Your task to perform on an android device: remove spam from my inbox in the gmail app Image 0: 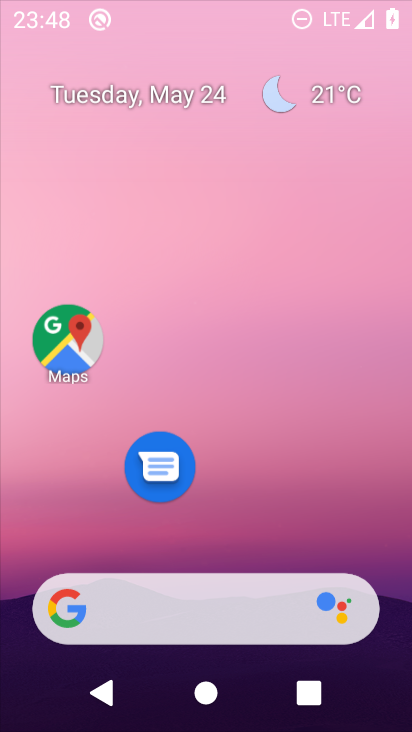
Step 0: click (200, 155)
Your task to perform on an android device: remove spam from my inbox in the gmail app Image 1: 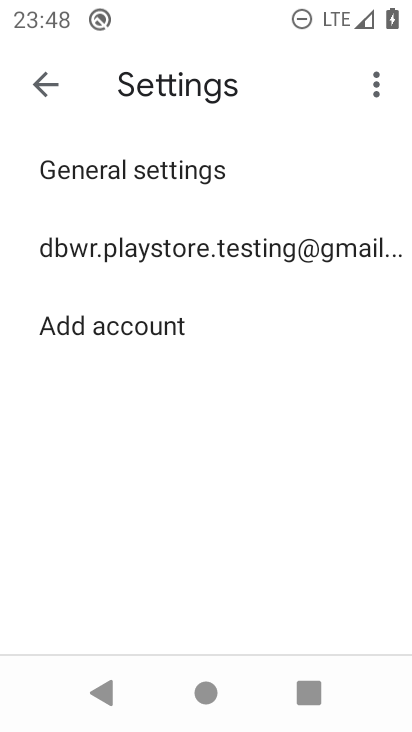
Step 1: drag from (192, 604) to (154, 214)
Your task to perform on an android device: remove spam from my inbox in the gmail app Image 2: 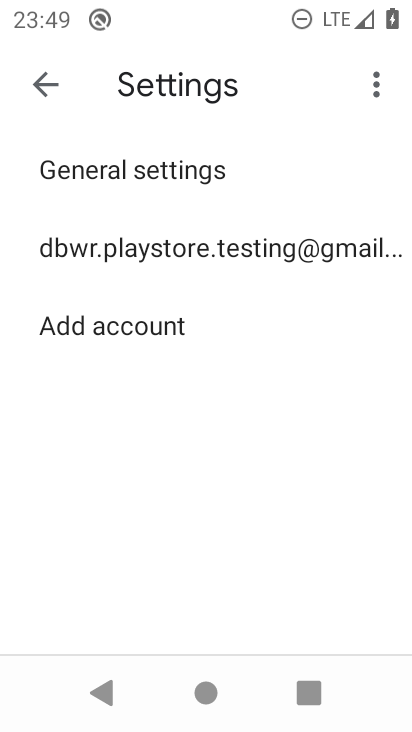
Step 2: drag from (185, 435) to (197, 158)
Your task to perform on an android device: remove spam from my inbox in the gmail app Image 3: 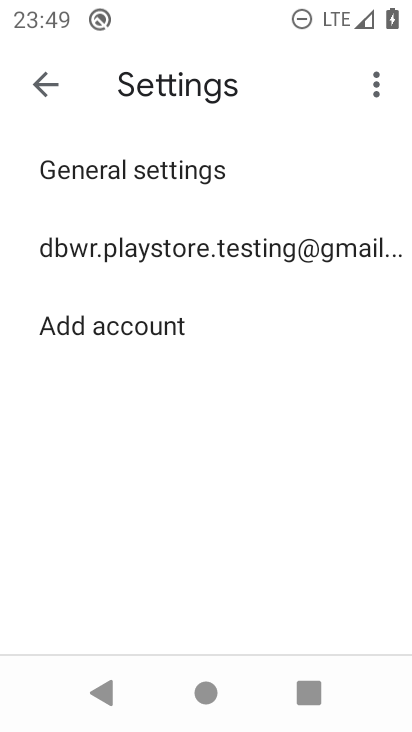
Step 3: drag from (285, 412) to (261, 162)
Your task to perform on an android device: remove spam from my inbox in the gmail app Image 4: 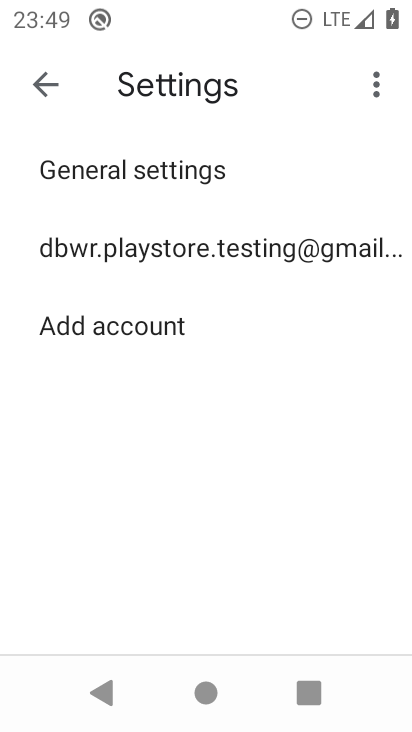
Step 4: press home button
Your task to perform on an android device: remove spam from my inbox in the gmail app Image 5: 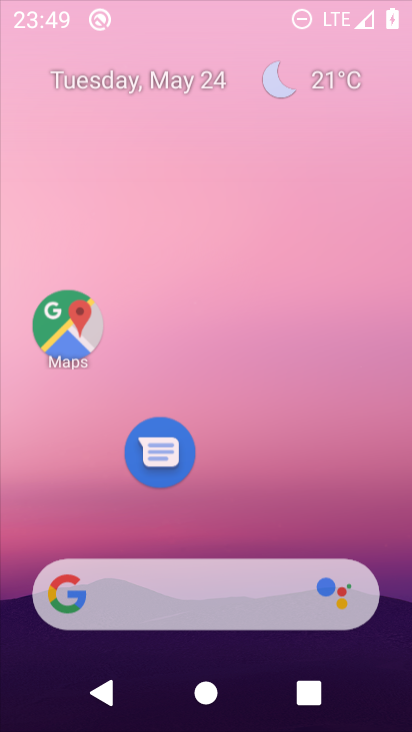
Step 5: drag from (188, 595) to (226, 102)
Your task to perform on an android device: remove spam from my inbox in the gmail app Image 6: 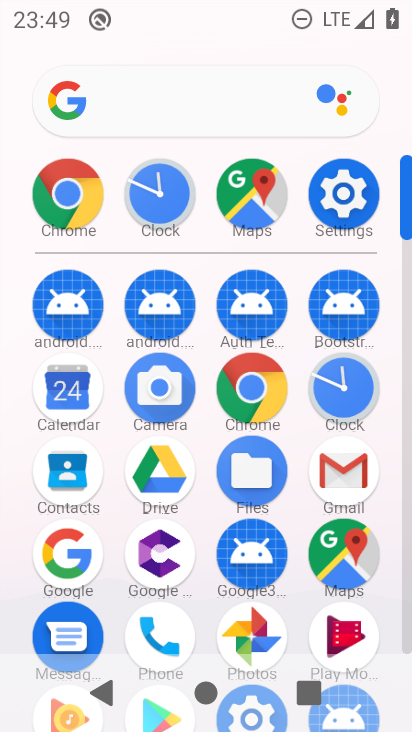
Step 6: click (330, 467)
Your task to perform on an android device: remove spam from my inbox in the gmail app Image 7: 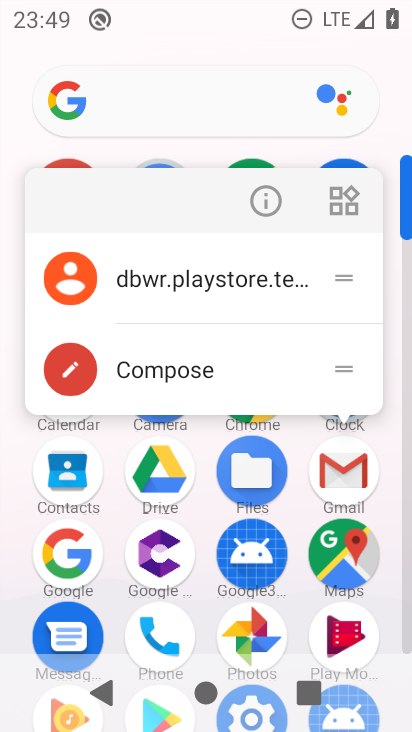
Step 7: click (279, 199)
Your task to perform on an android device: remove spam from my inbox in the gmail app Image 8: 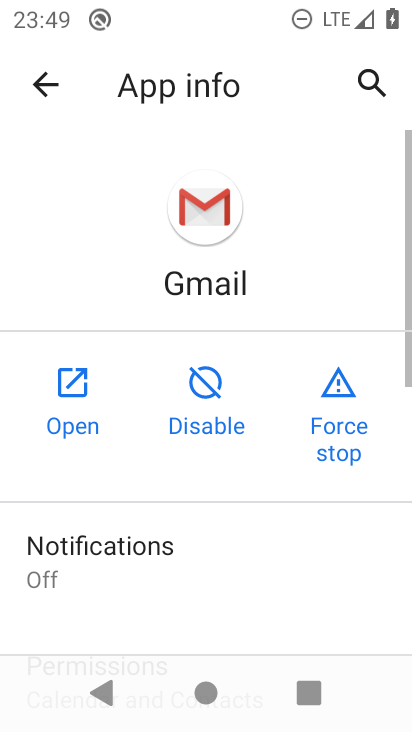
Step 8: click (49, 438)
Your task to perform on an android device: remove spam from my inbox in the gmail app Image 9: 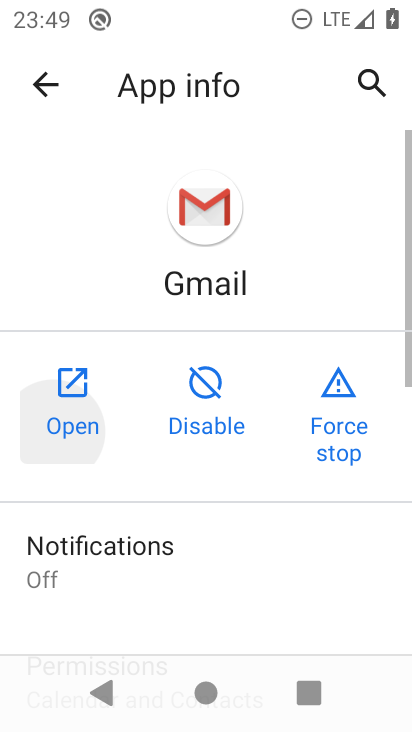
Step 9: click (74, 390)
Your task to perform on an android device: remove spam from my inbox in the gmail app Image 10: 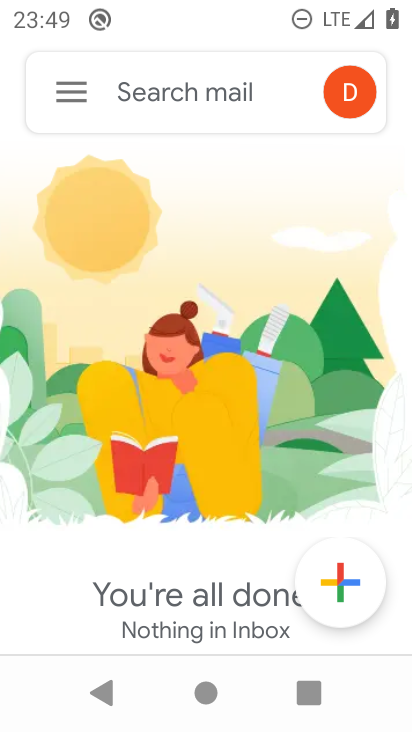
Step 10: click (58, 83)
Your task to perform on an android device: remove spam from my inbox in the gmail app Image 11: 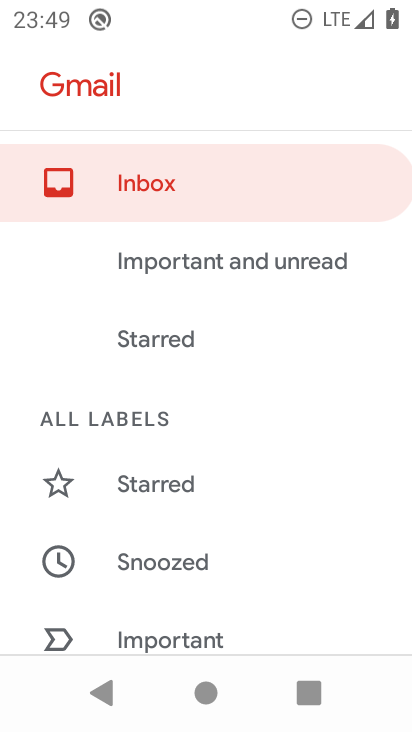
Step 11: drag from (175, 578) to (221, 340)
Your task to perform on an android device: remove spam from my inbox in the gmail app Image 12: 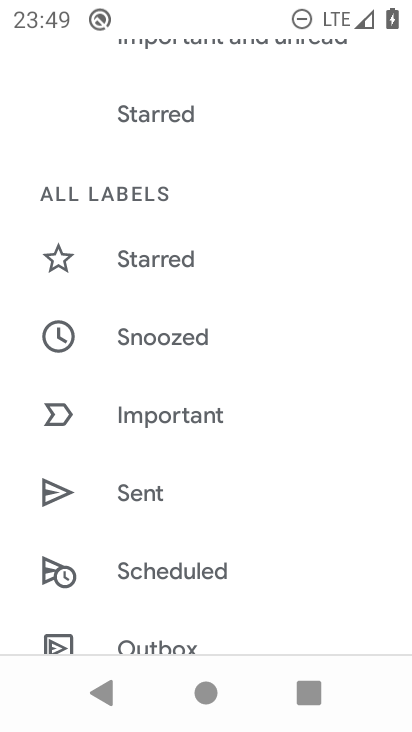
Step 12: drag from (224, 597) to (295, 127)
Your task to perform on an android device: remove spam from my inbox in the gmail app Image 13: 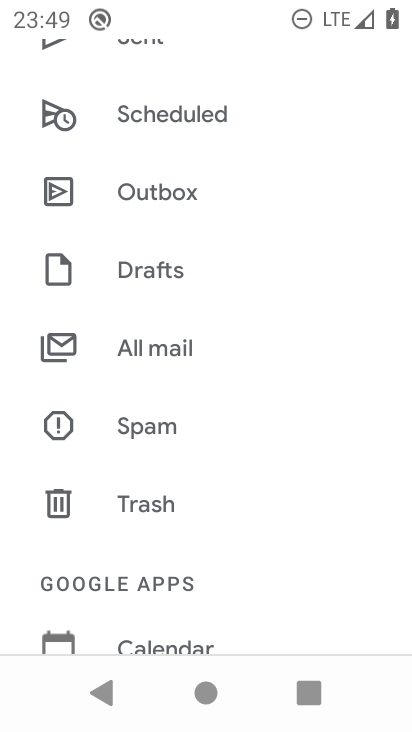
Step 13: click (144, 429)
Your task to perform on an android device: remove spam from my inbox in the gmail app Image 14: 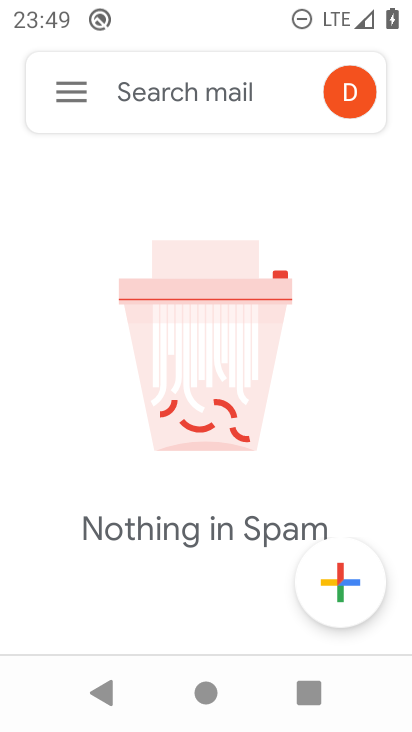
Step 14: drag from (187, 582) to (253, 368)
Your task to perform on an android device: remove spam from my inbox in the gmail app Image 15: 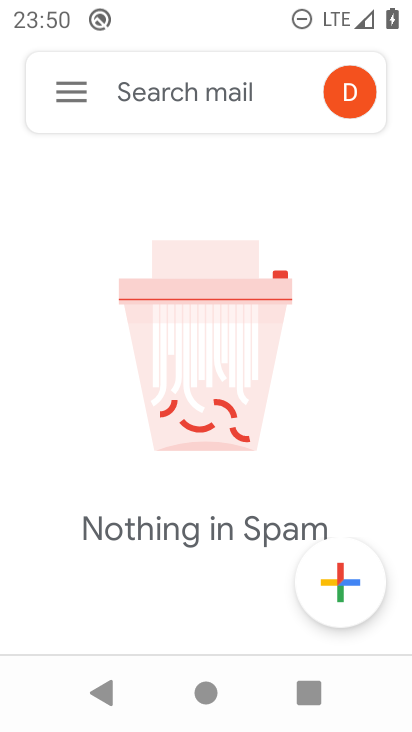
Step 15: drag from (194, 639) to (264, 262)
Your task to perform on an android device: remove spam from my inbox in the gmail app Image 16: 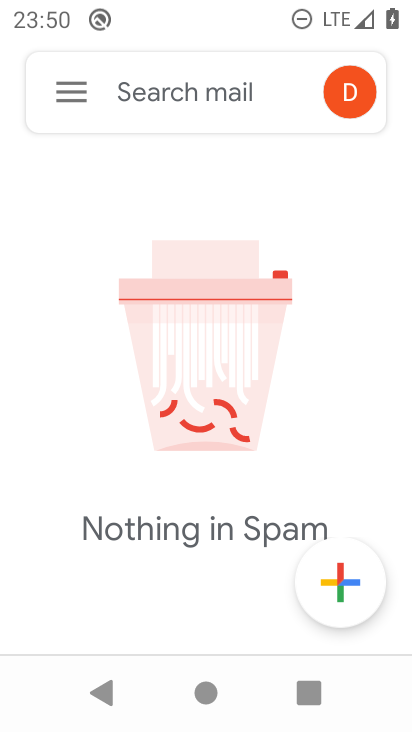
Step 16: click (195, 207)
Your task to perform on an android device: remove spam from my inbox in the gmail app Image 17: 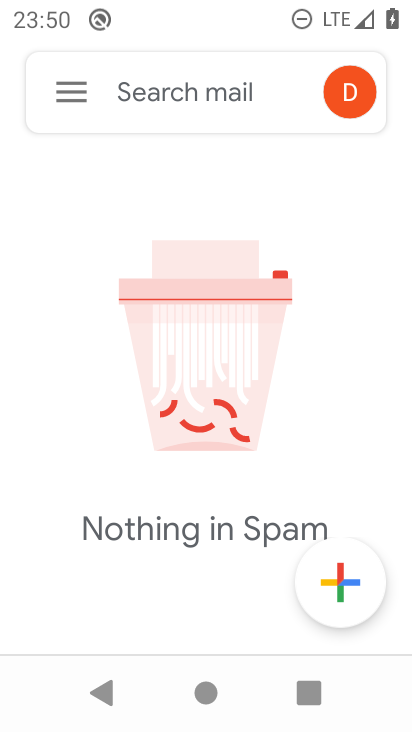
Step 17: drag from (249, 545) to (245, 243)
Your task to perform on an android device: remove spam from my inbox in the gmail app Image 18: 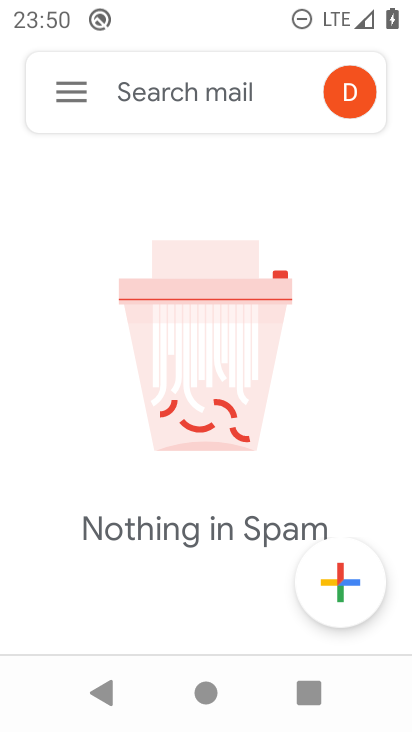
Step 18: click (70, 102)
Your task to perform on an android device: remove spam from my inbox in the gmail app Image 19: 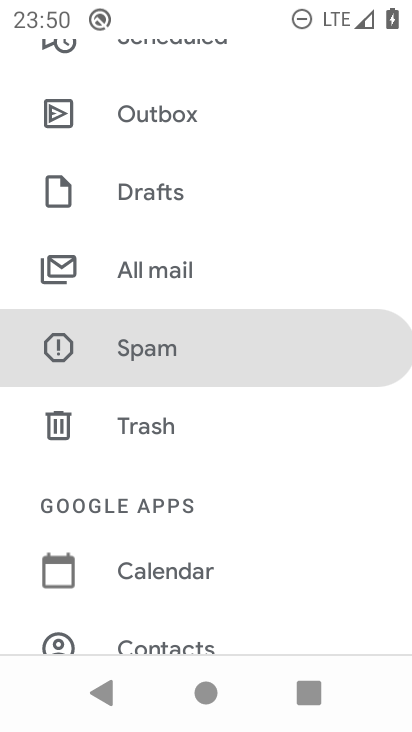
Step 19: click (150, 343)
Your task to perform on an android device: remove spam from my inbox in the gmail app Image 20: 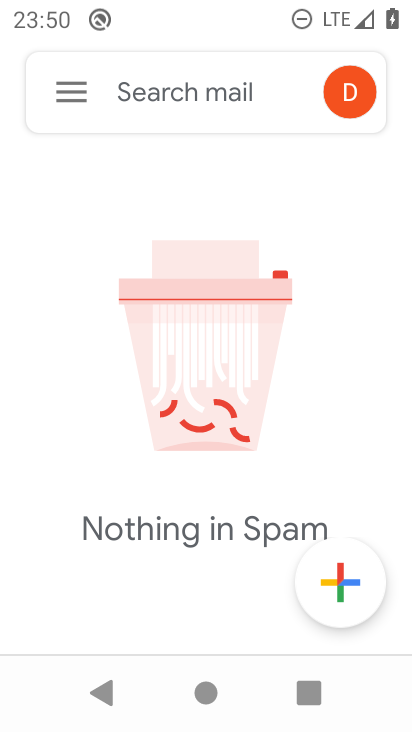
Step 20: click (217, 277)
Your task to perform on an android device: remove spam from my inbox in the gmail app Image 21: 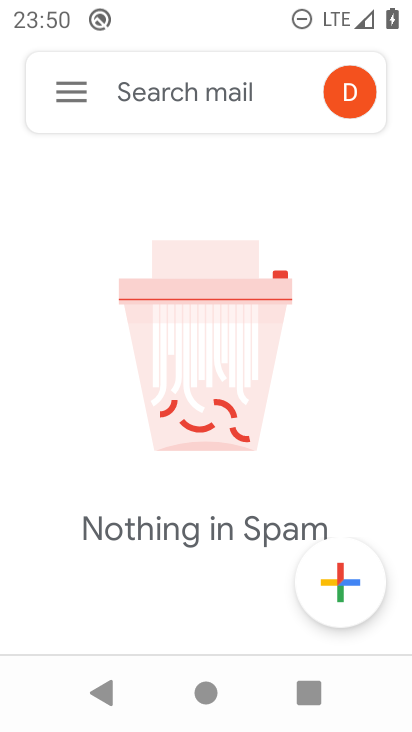
Step 21: click (235, 441)
Your task to perform on an android device: remove spam from my inbox in the gmail app Image 22: 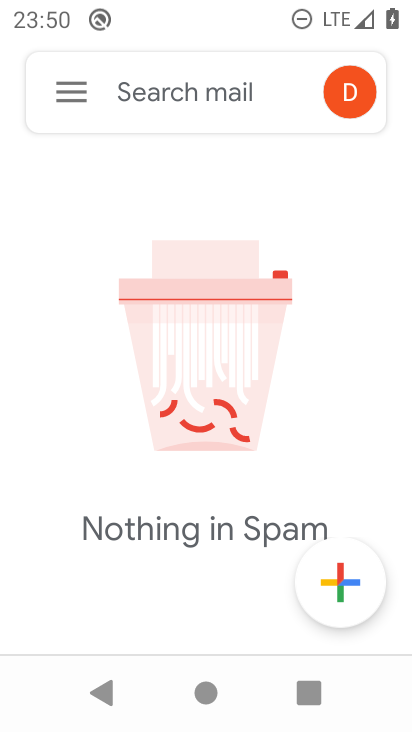
Step 22: task complete